Your task to perform on an android device: delete browsing data in the chrome app Image 0: 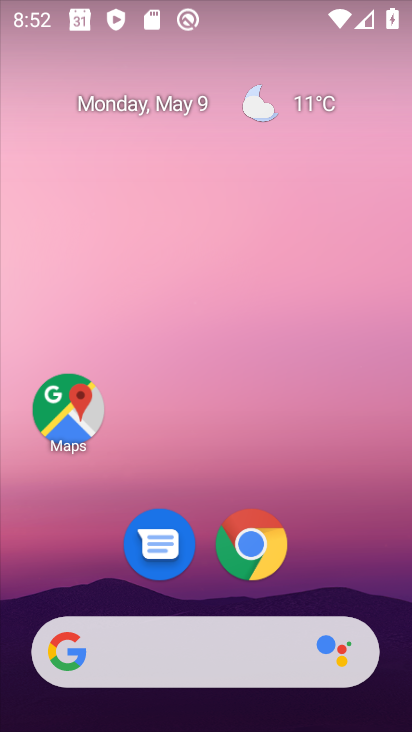
Step 0: click (256, 545)
Your task to perform on an android device: delete browsing data in the chrome app Image 1: 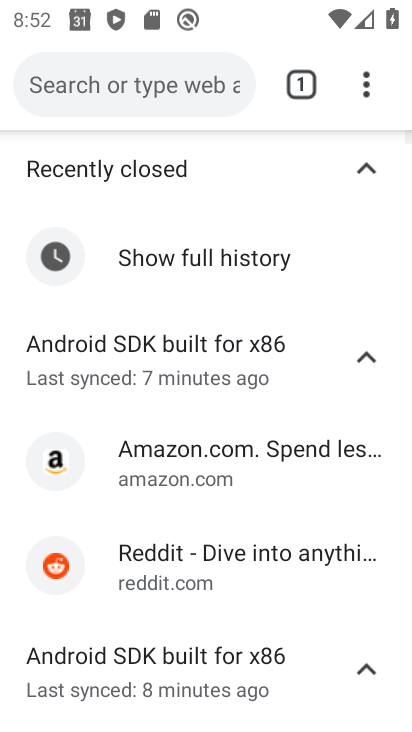
Step 1: click (365, 82)
Your task to perform on an android device: delete browsing data in the chrome app Image 2: 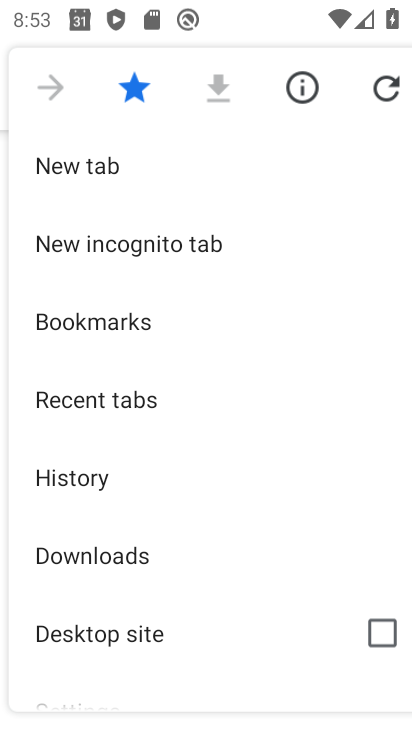
Step 2: click (79, 471)
Your task to perform on an android device: delete browsing data in the chrome app Image 3: 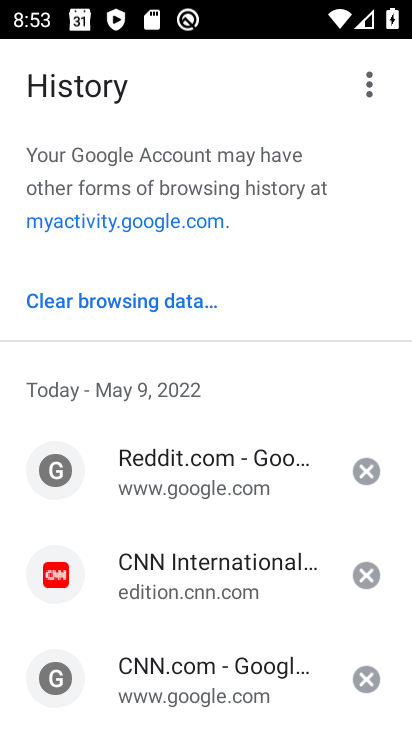
Step 3: click (119, 300)
Your task to perform on an android device: delete browsing data in the chrome app Image 4: 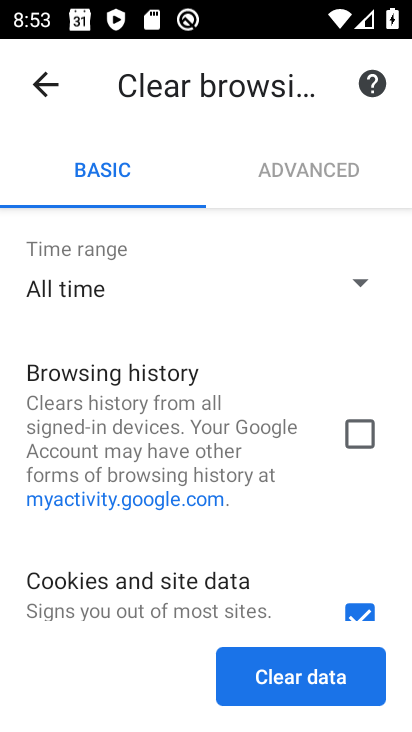
Step 4: click (356, 429)
Your task to perform on an android device: delete browsing data in the chrome app Image 5: 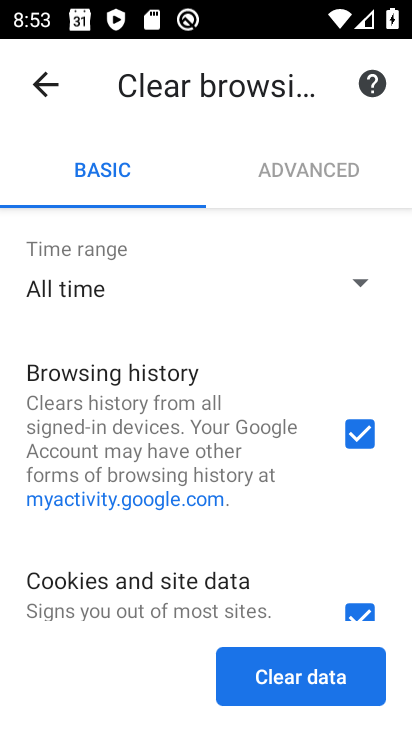
Step 5: click (365, 603)
Your task to perform on an android device: delete browsing data in the chrome app Image 6: 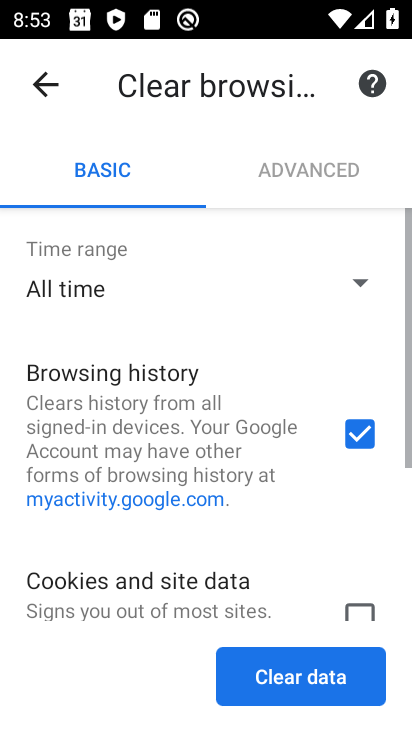
Step 6: click (363, 607)
Your task to perform on an android device: delete browsing data in the chrome app Image 7: 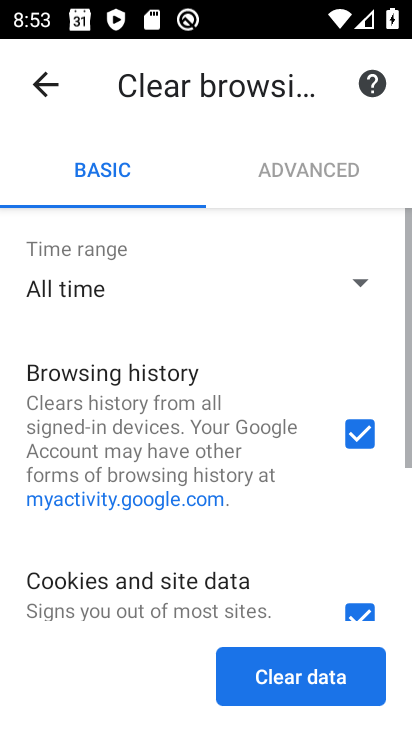
Step 7: click (329, 655)
Your task to perform on an android device: delete browsing data in the chrome app Image 8: 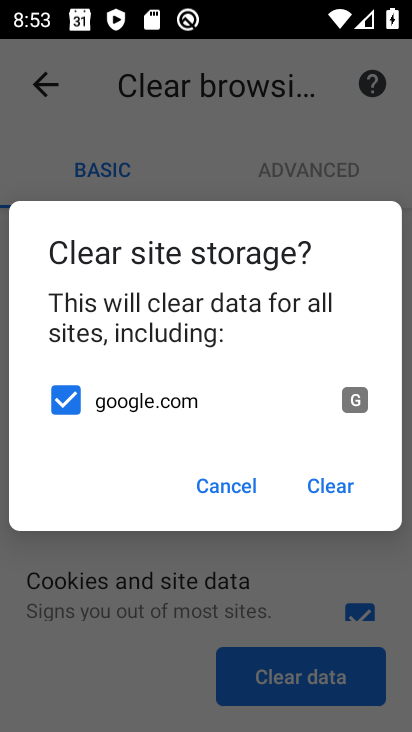
Step 8: click (335, 496)
Your task to perform on an android device: delete browsing data in the chrome app Image 9: 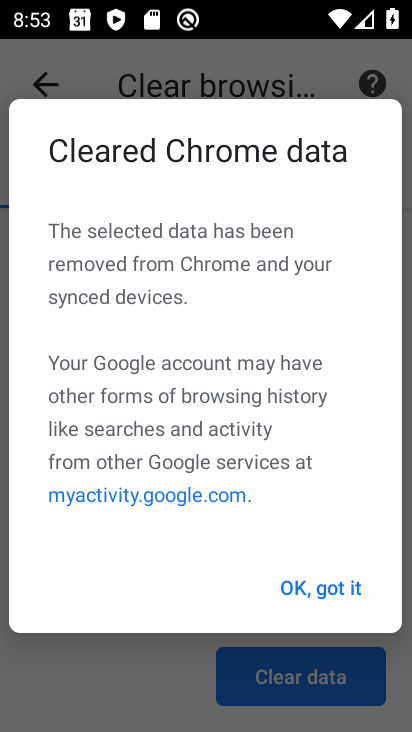
Step 9: click (323, 594)
Your task to perform on an android device: delete browsing data in the chrome app Image 10: 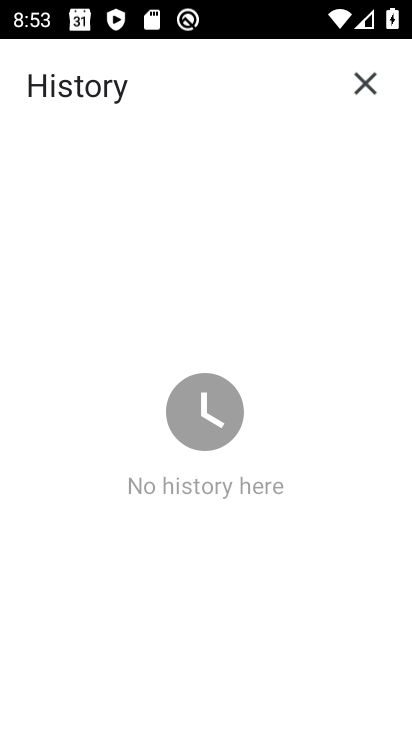
Step 10: task complete